Your task to perform on an android device: Open sound settings Image 0: 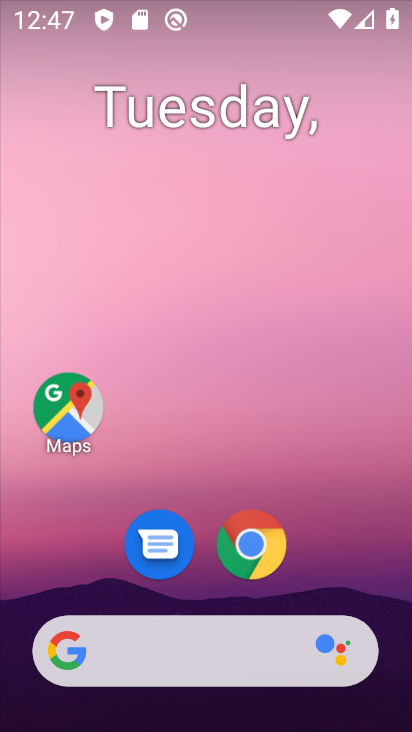
Step 0: drag from (388, 643) to (286, 69)
Your task to perform on an android device: Open sound settings Image 1: 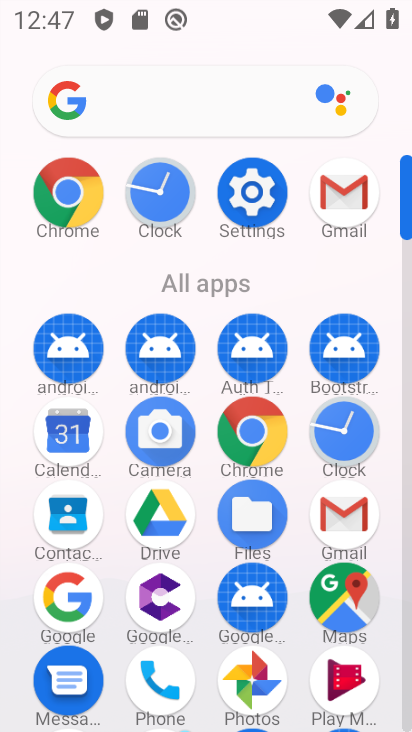
Step 1: click (408, 685)
Your task to perform on an android device: Open sound settings Image 2: 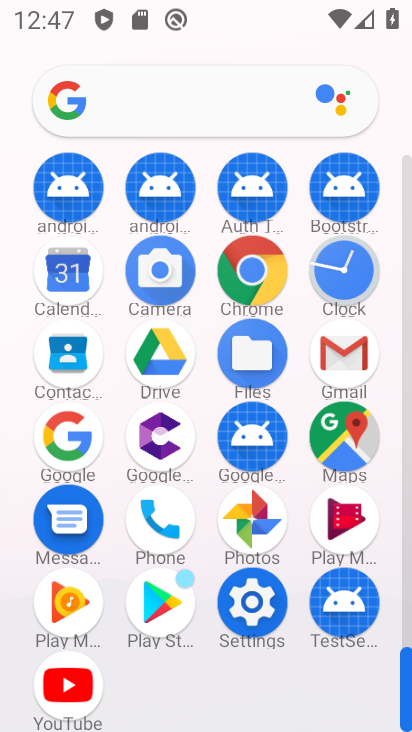
Step 2: click (253, 600)
Your task to perform on an android device: Open sound settings Image 3: 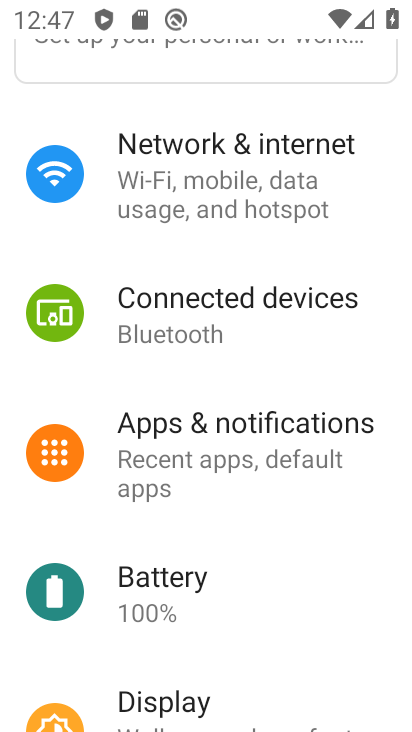
Step 3: drag from (343, 688) to (324, 410)
Your task to perform on an android device: Open sound settings Image 4: 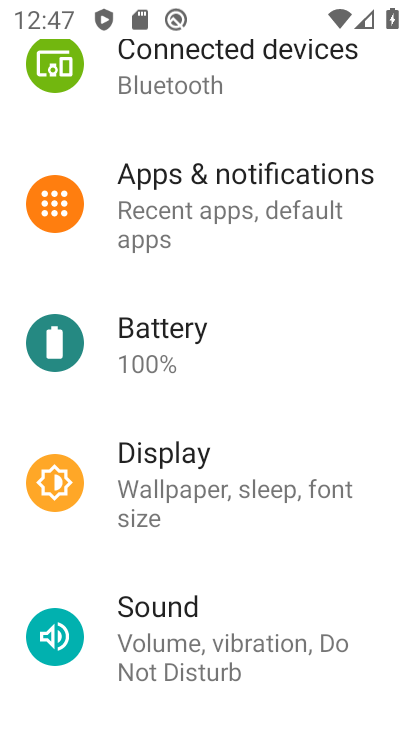
Step 4: drag from (357, 608) to (321, 255)
Your task to perform on an android device: Open sound settings Image 5: 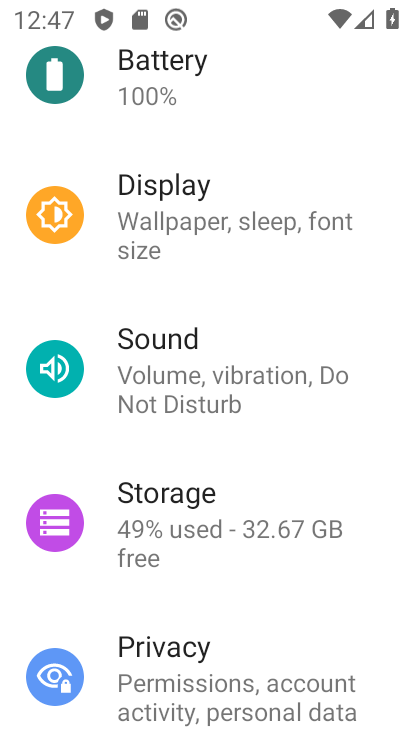
Step 5: click (179, 364)
Your task to perform on an android device: Open sound settings Image 6: 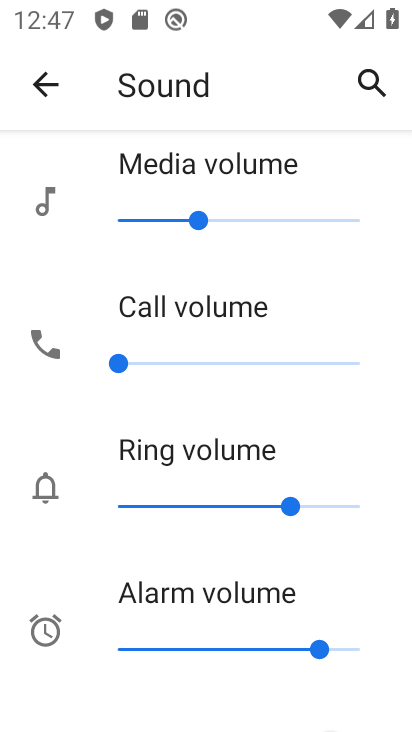
Step 6: drag from (345, 623) to (303, 186)
Your task to perform on an android device: Open sound settings Image 7: 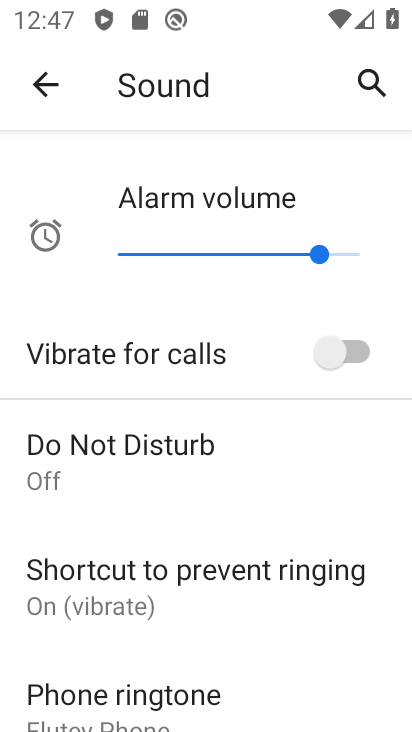
Step 7: drag from (333, 546) to (337, 221)
Your task to perform on an android device: Open sound settings Image 8: 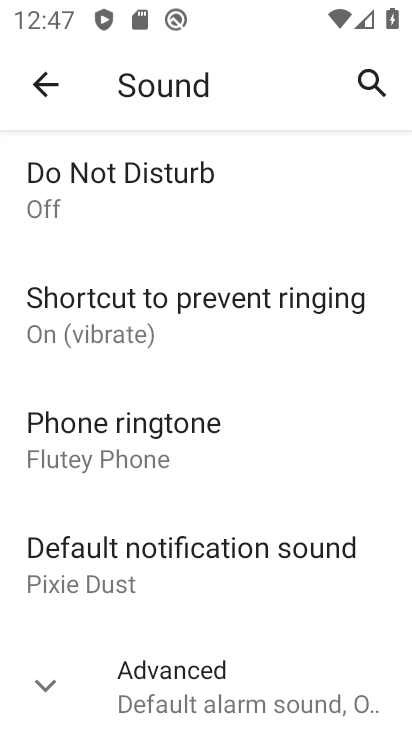
Step 8: drag from (317, 572) to (322, 285)
Your task to perform on an android device: Open sound settings Image 9: 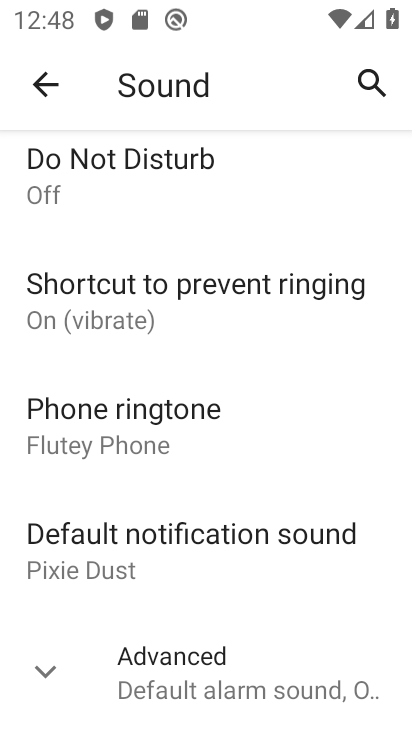
Step 9: click (38, 674)
Your task to perform on an android device: Open sound settings Image 10: 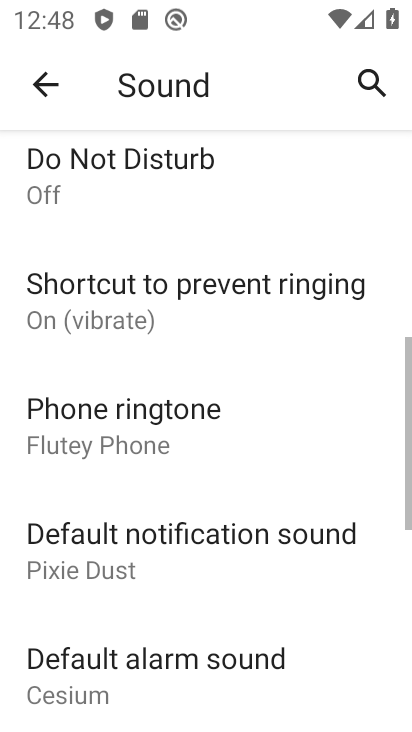
Step 10: task complete